Your task to perform on an android device: set default search engine in the chrome app Image 0: 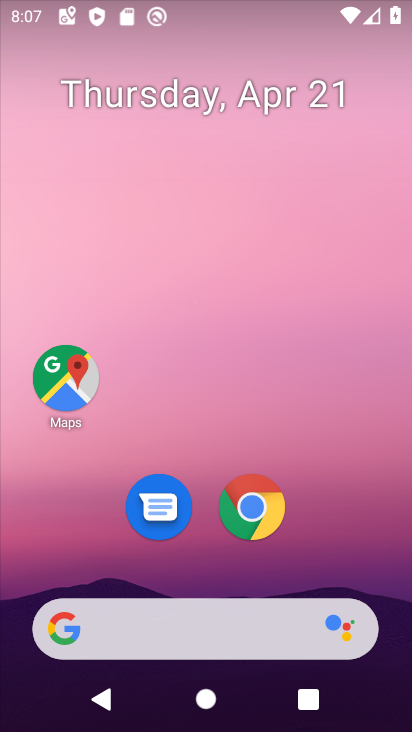
Step 0: drag from (336, 518) to (354, 84)
Your task to perform on an android device: set default search engine in the chrome app Image 1: 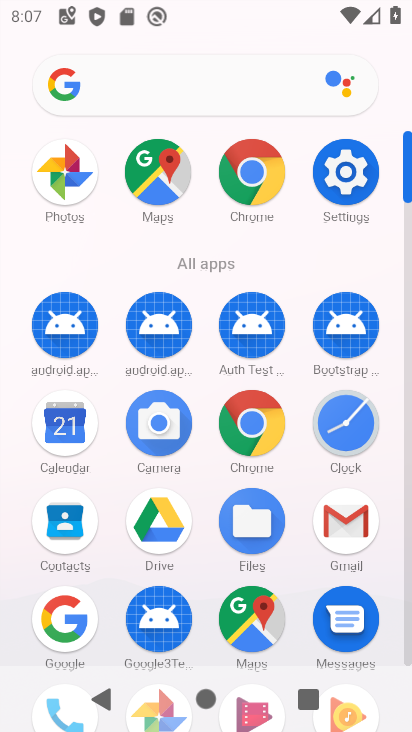
Step 1: click (243, 437)
Your task to perform on an android device: set default search engine in the chrome app Image 2: 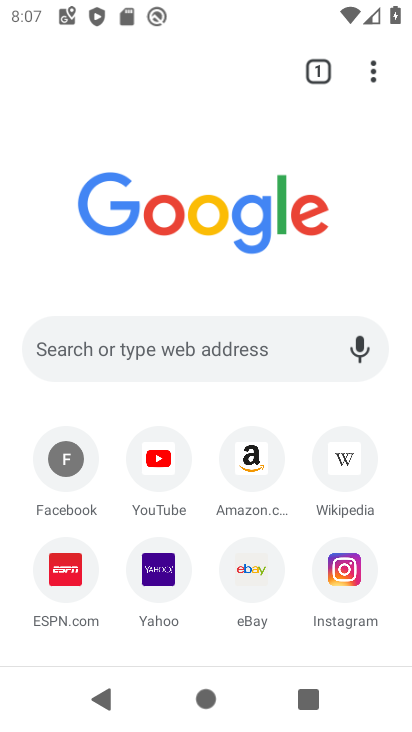
Step 2: drag from (375, 82) to (98, 494)
Your task to perform on an android device: set default search engine in the chrome app Image 3: 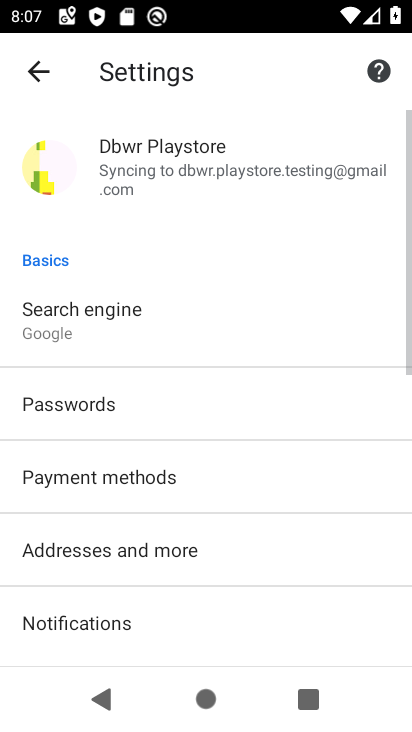
Step 3: click (129, 323)
Your task to perform on an android device: set default search engine in the chrome app Image 4: 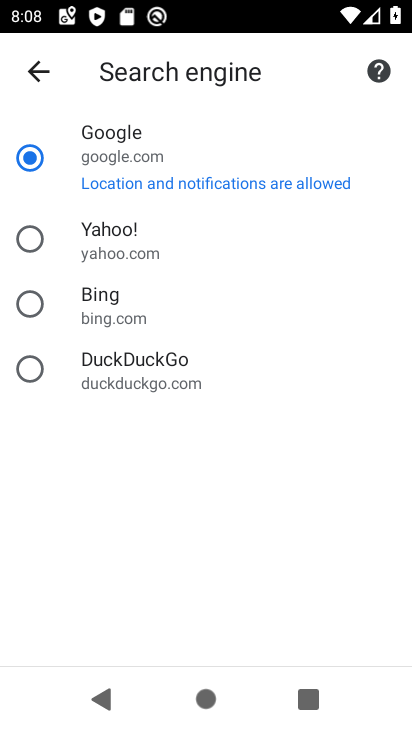
Step 4: task complete